Your task to perform on an android device: What's the weather? Image 0: 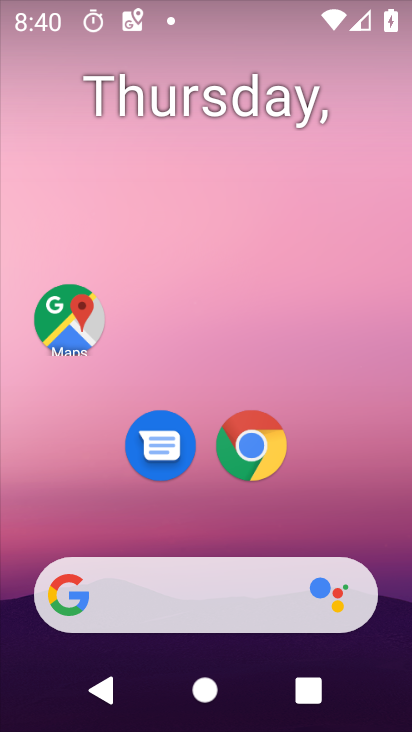
Step 0: click (213, 602)
Your task to perform on an android device: What's the weather? Image 1: 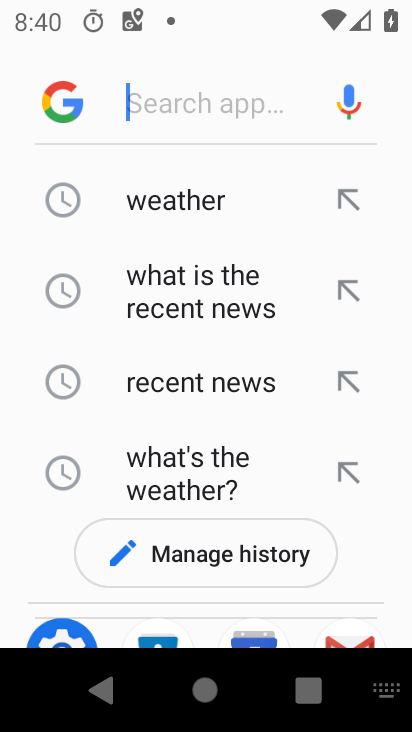
Step 1: click (110, 196)
Your task to perform on an android device: What's the weather? Image 2: 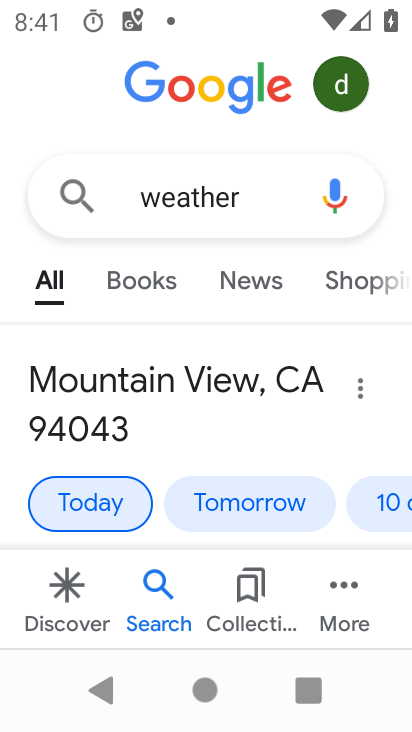
Step 2: task complete